Your task to perform on an android device: turn on priority inbox in the gmail app Image 0: 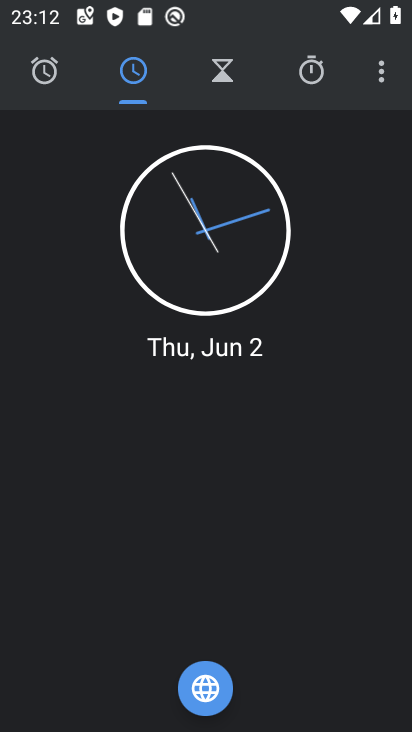
Step 0: press home button
Your task to perform on an android device: turn on priority inbox in the gmail app Image 1: 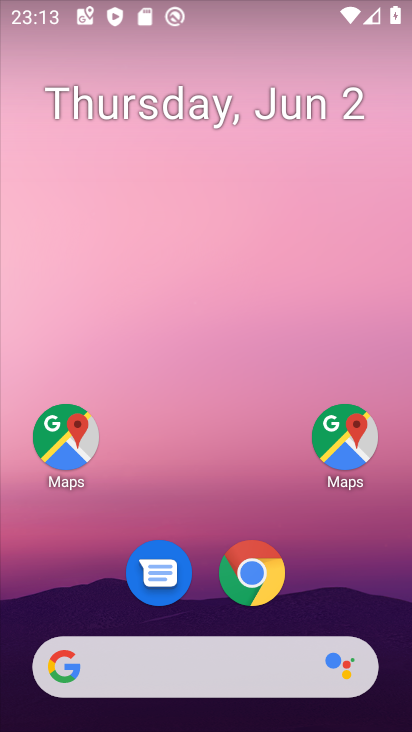
Step 1: drag from (355, 572) to (316, 173)
Your task to perform on an android device: turn on priority inbox in the gmail app Image 2: 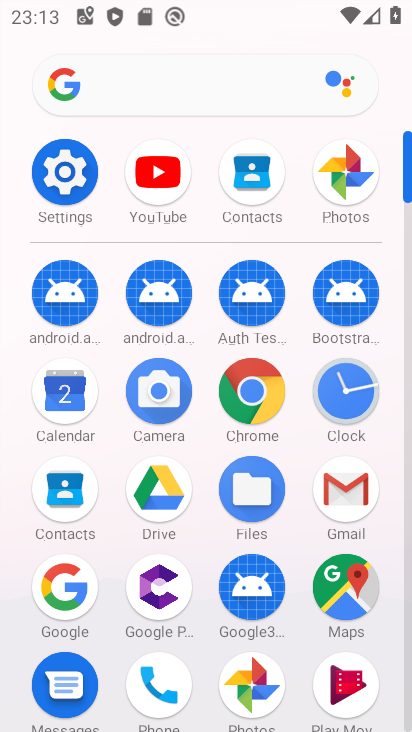
Step 2: click (343, 514)
Your task to perform on an android device: turn on priority inbox in the gmail app Image 3: 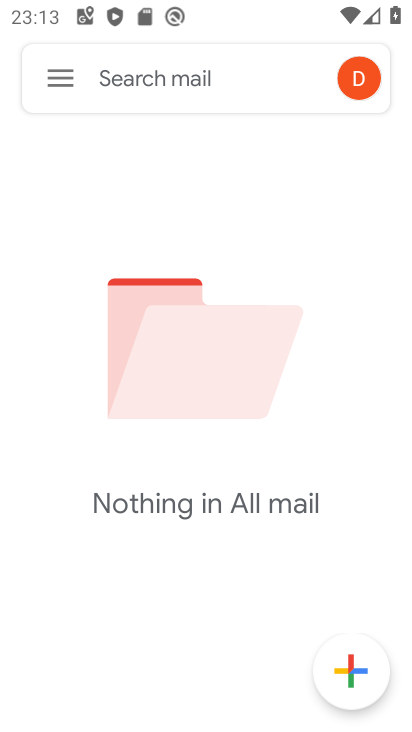
Step 3: click (55, 65)
Your task to perform on an android device: turn on priority inbox in the gmail app Image 4: 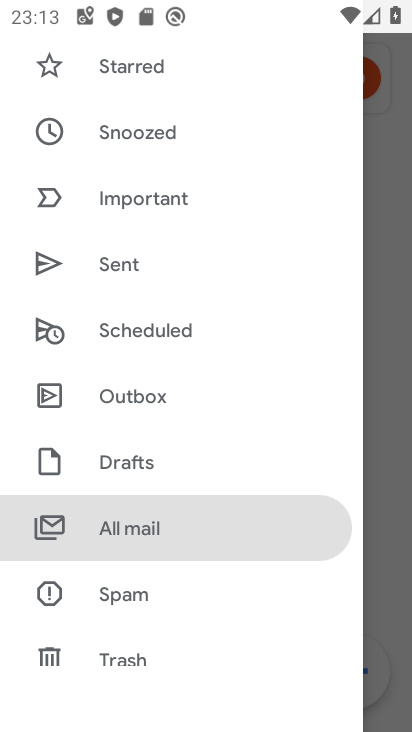
Step 4: drag from (192, 675) to (229, 320)
Your task to perform on an android device: turn on priority inbox in the gmail app Image 5: 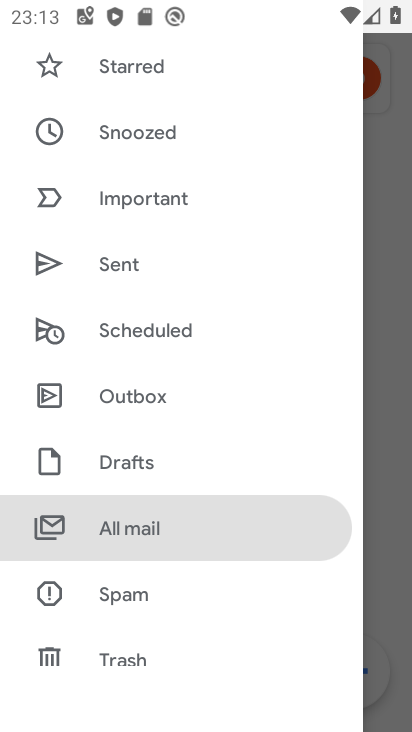
Step 5: click (229, 320)
Your task to perform on an android device: turn on priority inbox in the gmail app Image 6: 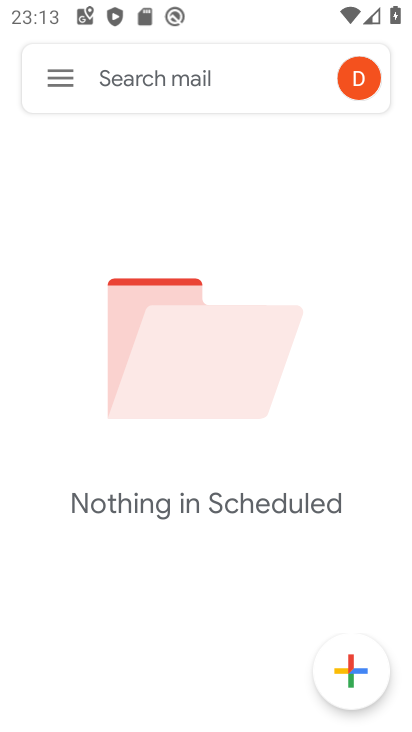
Step 6: click (56, 85)
Your task to perform on an android device: turn on priority inbox in the gmail app Image 7: 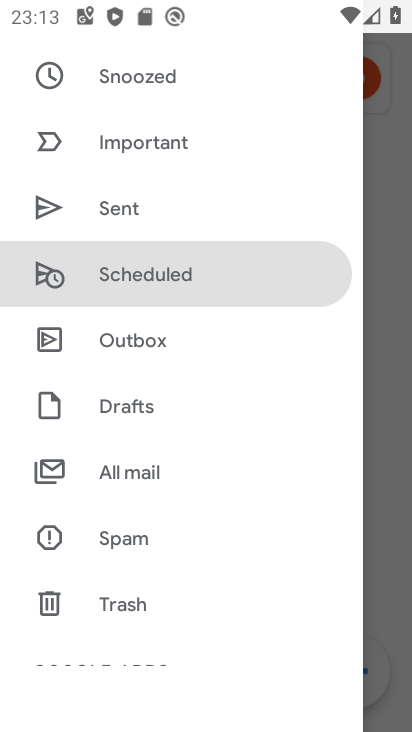
Step 7: drag from (202, 596) to (212, 246)
Your task to perform on an android device: turn on priority inbox in the gmail app Image 8: 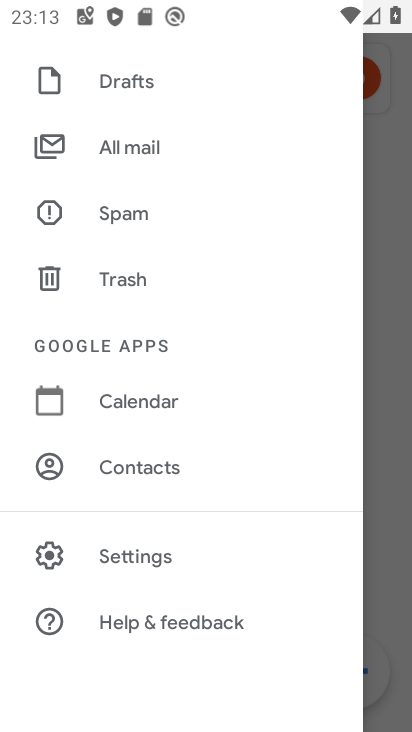
Step 8: click (138, 535)
Your task to perform on an android device: turn on priority inbox in the gmail app Image 9: 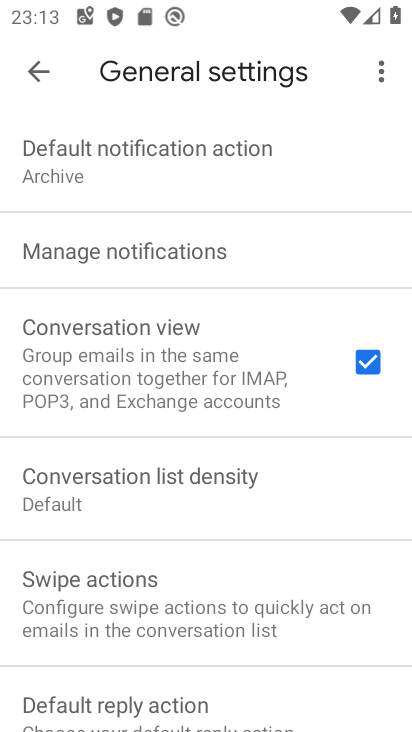
Step 9: drag from (213, 658) to (181, 102)
Your task to perform on an android device: turn on priority inbox in the gmail app Image 10: 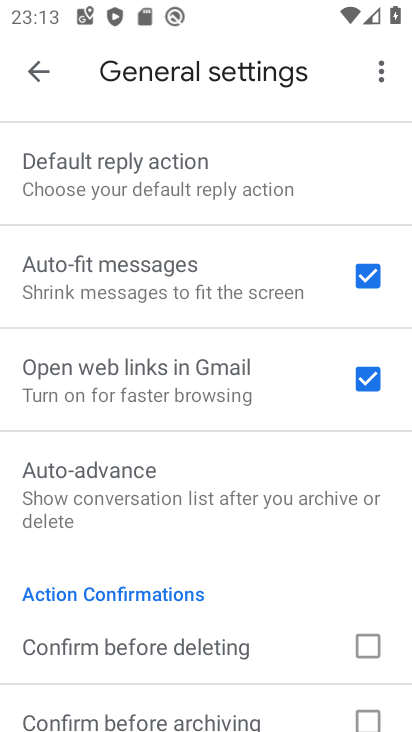
Step 10: drag from (232, 648) to (180, 281)
Your task to perform on an android device: turn on priority inbox in the gmail app Image 11: 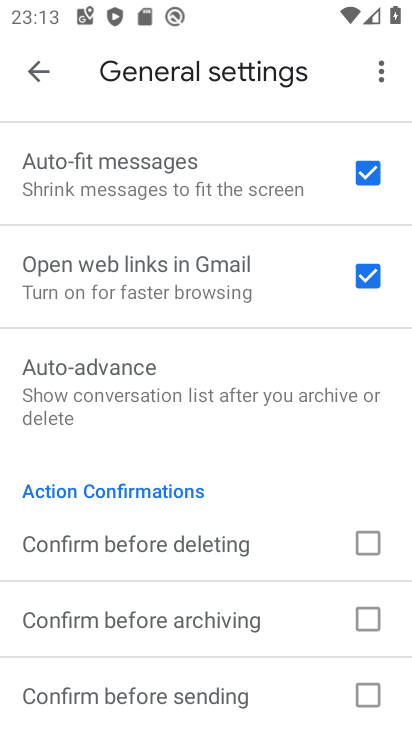
Step 11: drag from (241, 672) to (175, 197)
Your task to perform on an android device: turn on priority inbox in the gmail app Image 12: 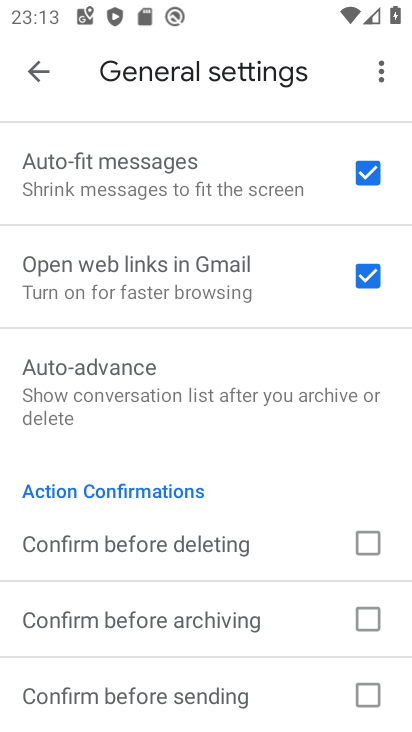
Step 12: click (377, 83)
Your task to perform on an android device: turn on priority inbox in the gmail app Image 13: 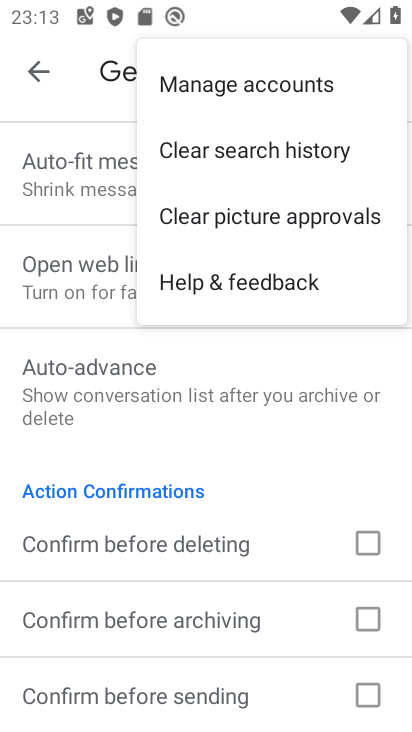
Step 13: click (44, 47)
Your task to perform on an android device: turn on priority inbox in the gmail app Image 14: 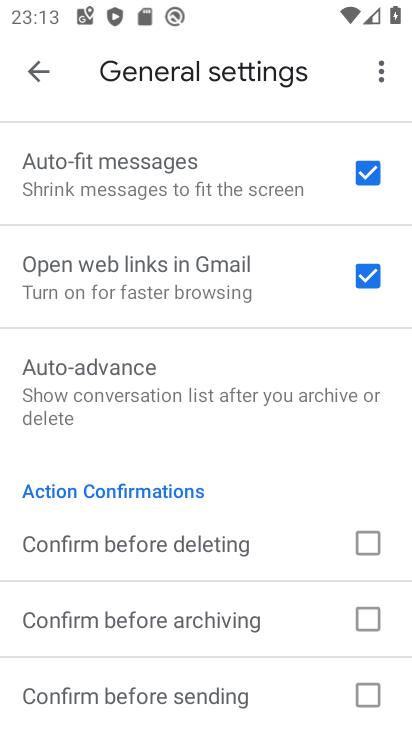
Step 14: click (44, 47)
Your task to perform on an android device: turn on priority inbox in the gmail app Image 15: 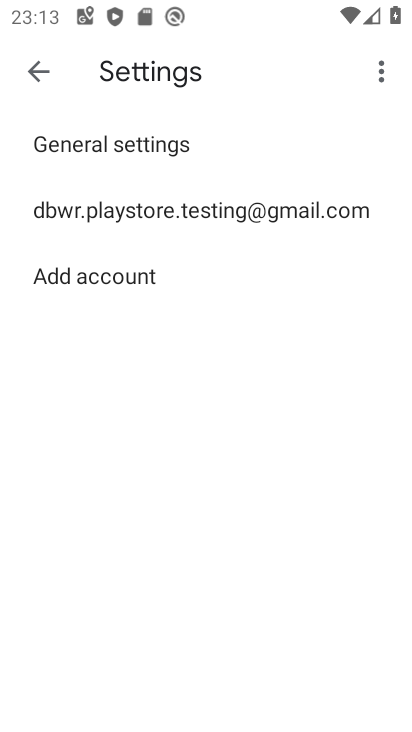
Step 15: click (44, 47)
Your task to perform on an android device: turn on priority inbox in the gmail app Image 16: 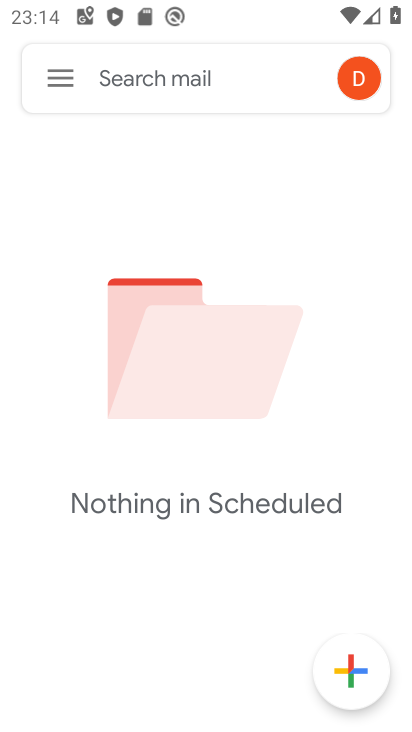
Step 16: click (50, 76)
Your task to perform on an android device: turn on priority inbox in the gmail app Image 17: 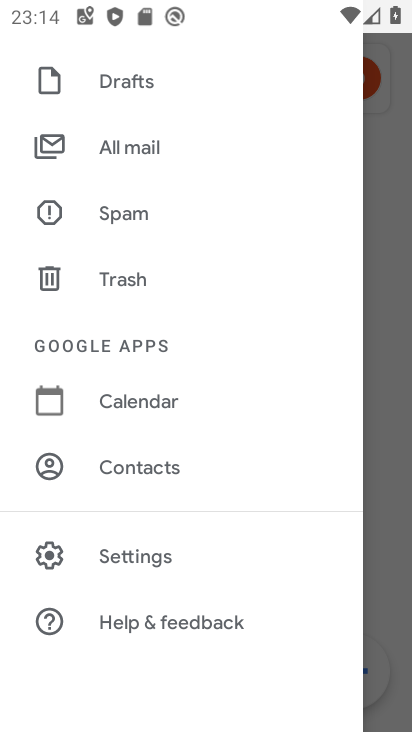
Step 17: drag from (220, 171) to (199, 481)
Your task to perform on an android device: turn on priority inbox in the gmail app Image 18: 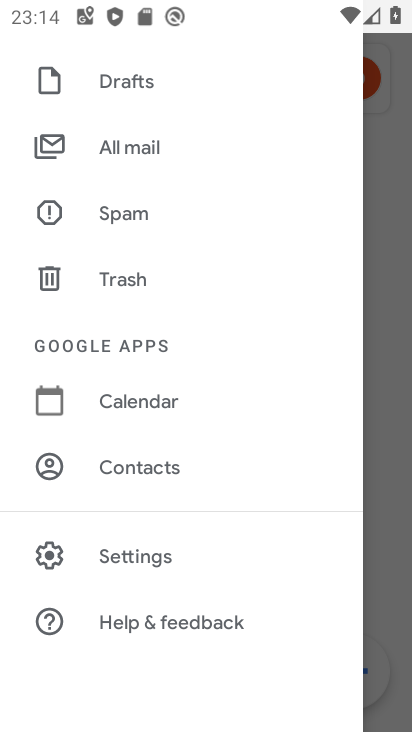
Step 18: drag from (287, 215) to (299, 641)
Your task to perform on an android device: turn on priority inbox in the gmail app Image 19: 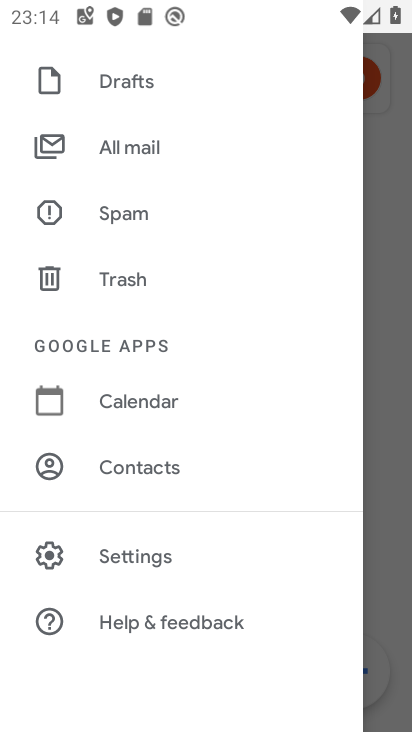
Step 19: drag from (269, 228) to (282, 651)
Your task to perform on an android device: turn on priority inbox in the gmail app Image 20: 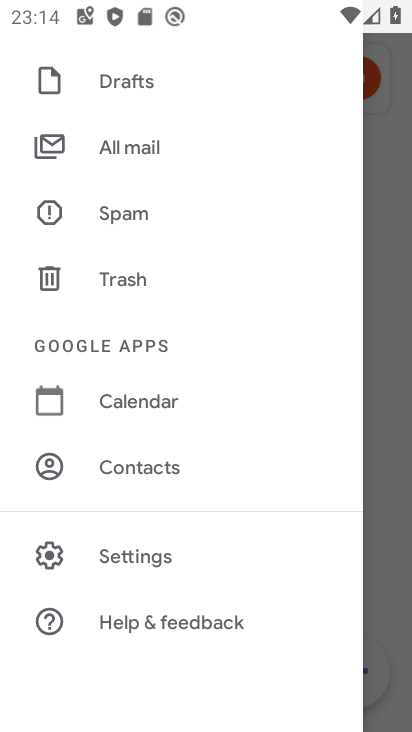
Step 20: drag from (332, 122) to (362, 510)
Your task to perform on an android device: turn on priority inbox in the gmail app Image 21: 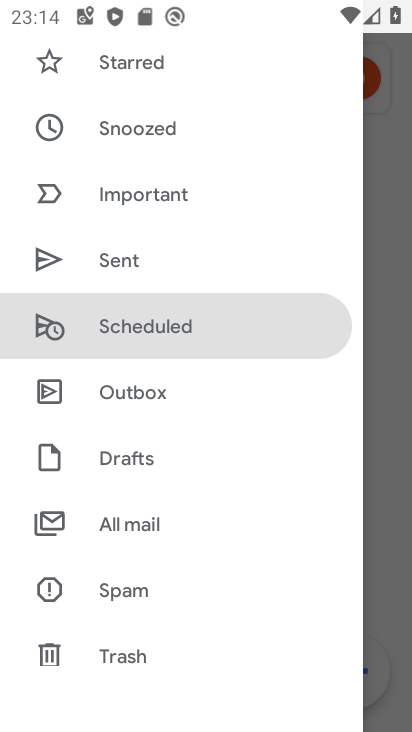
Step 21: drag from (279, 252) to (256, 727)
Your task to perform on an android device: turn on priority inbox in the gmail app Image 22: 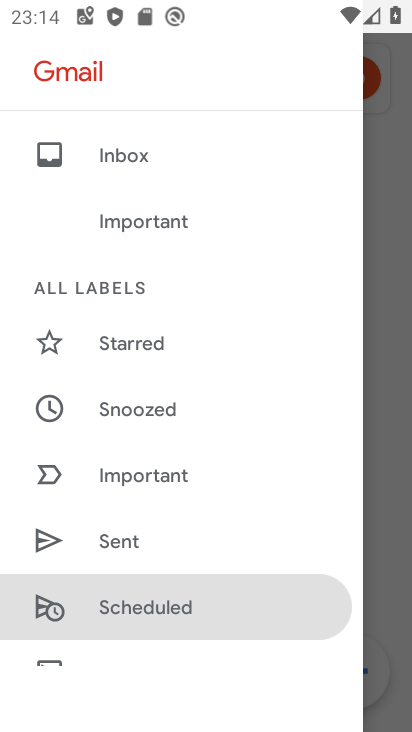
Step 22: click (168, 150)
Your task to perform on an android device: turn on priority inbox in the gmail app Image 23: 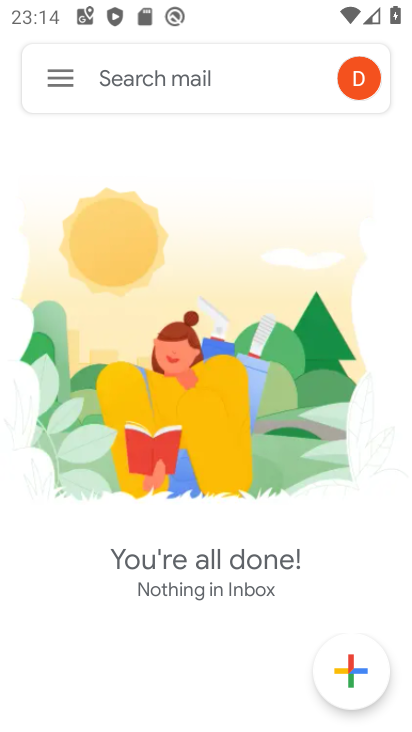
Step 23: task complete